Your task to perform on an android device: change alarm snooze length Image 0: 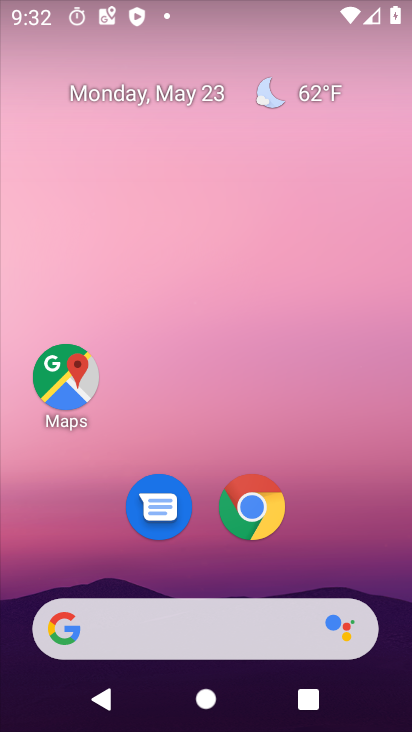
Step 0: drag from (330, 538) to (183, 183)
Your task to perform on an android device: change alarm snooze length Image 1: 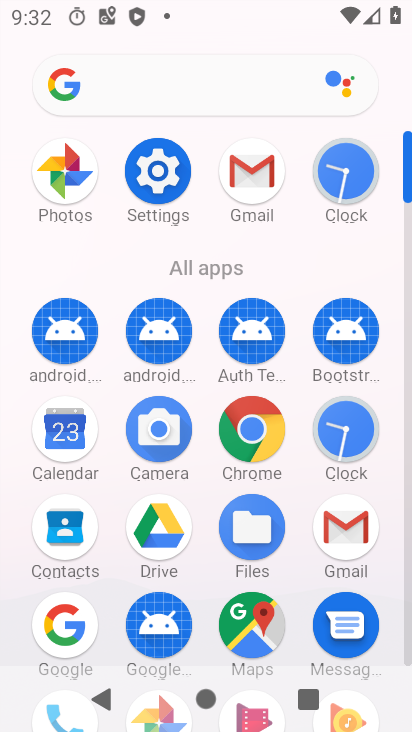
Step 1: click (345, 171)
Your task to perform on an android device: change alarm snooze length Image 2: 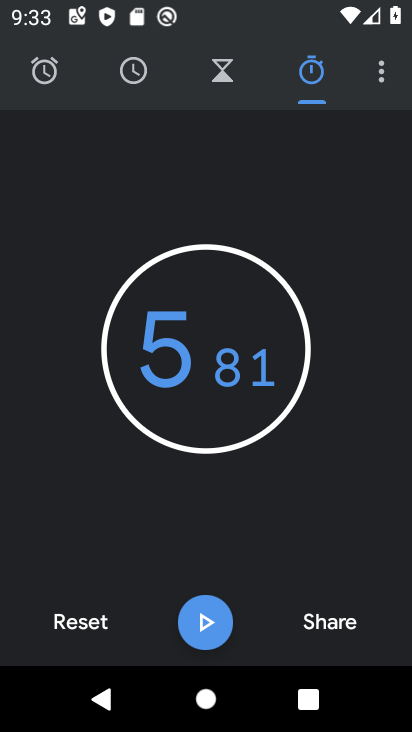
Step 2: click (382, 71)
Your task to perform on an android device: change alarm snooze length Image 3: 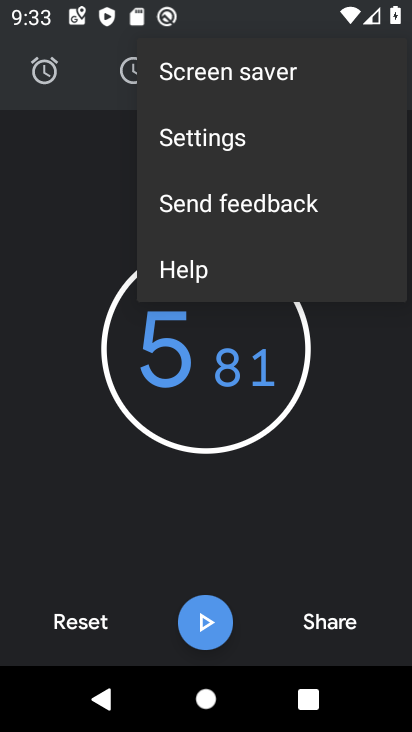
Step 3: click (222, 134)
Your task to perform on an android device: change alarm snooze length Image 4: 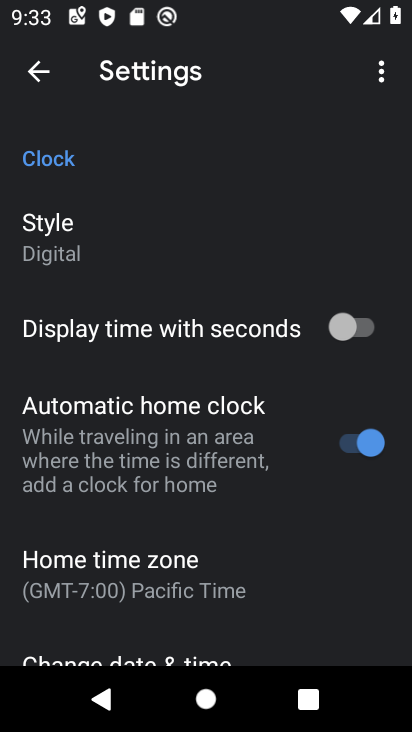
Step 4: drag from (130, 516) to (222, 408)
Your task to perform on an android device: change alarm snooze length Image 5: 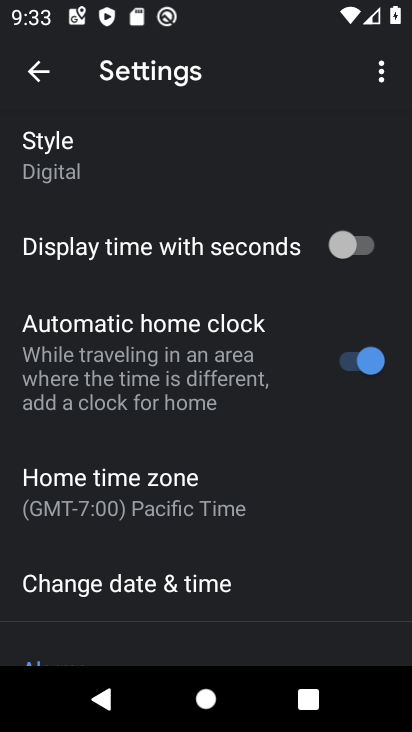
Step 5: drag from (138, 542) to (241, 430)
Your task to perform on an android device: change alarm snooze length Image 6: 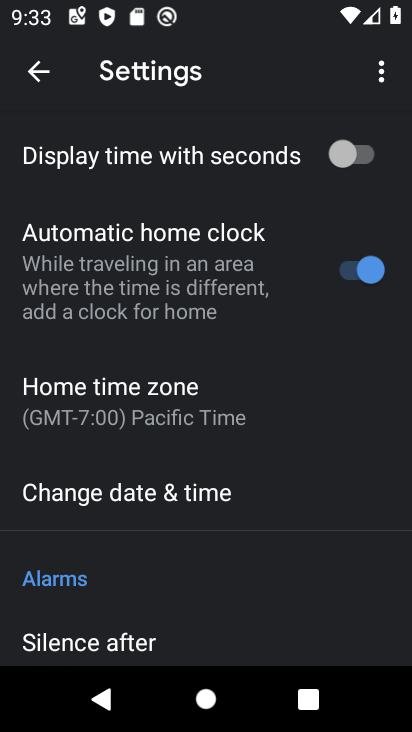
Step 6: drag from (154, 510) to (239, 410)
Your task to perform on an android device: change alarm snooze length Image 7: 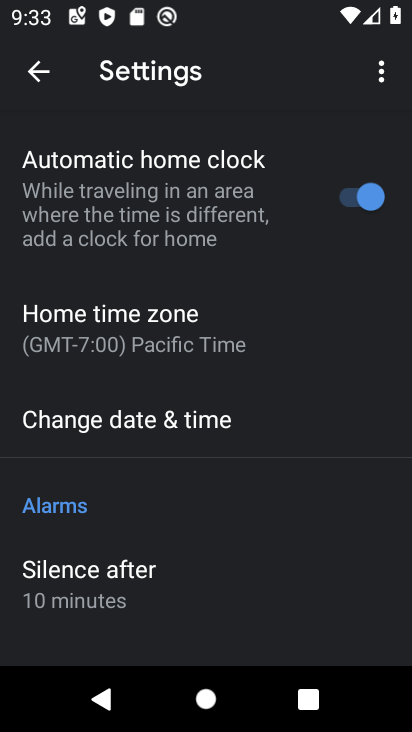
Step 7: drag from (204, 560) to (292, 450)
Your task to perform on an android device: change alarm snooze length Image 8: 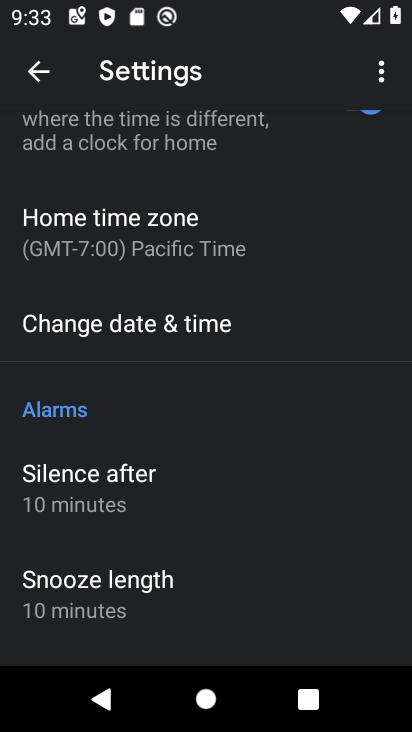
Step 8: click (149, 587)
Your task to perform on an android device: change alarm snooze length Image 9: 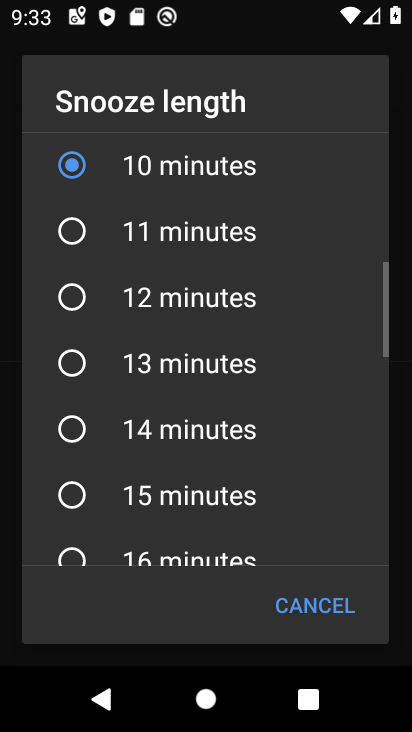
Step 9: drag from (146, 487) to (207, 392)
Your task to perform on an android device: change alarm snooze length Image 10: 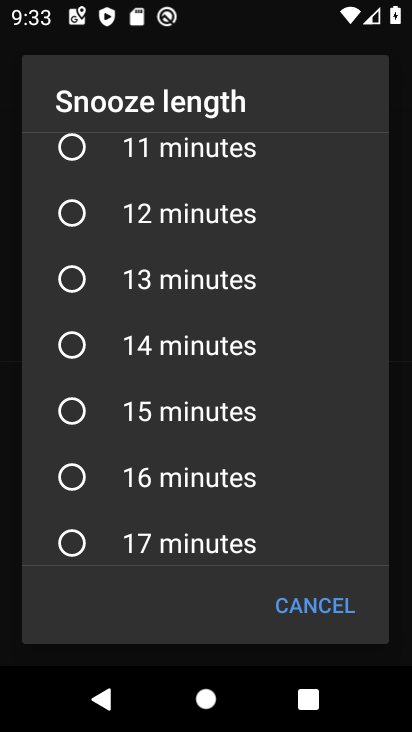
Step 10: drag from (112, 511) to (202, 398)
Your task to perform on an android device: change alarm snooze length Image 11: 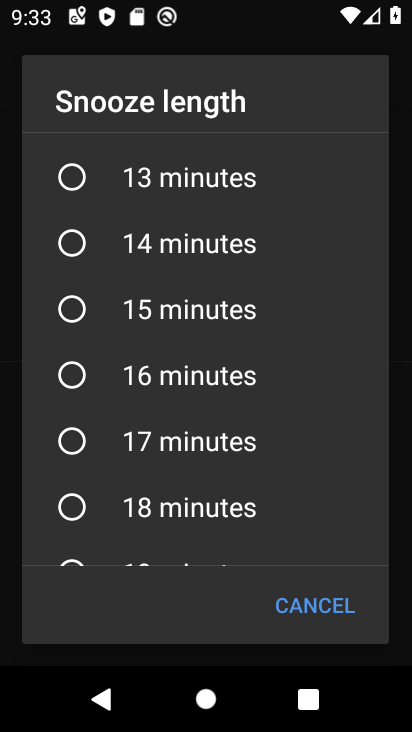
Step 11: click (74, 506)
Your task to perform on an android device: change alarm snooze length Image 12: 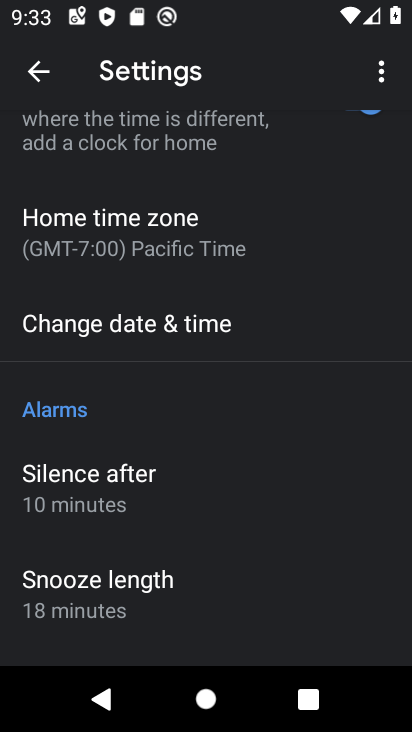
Step 12: task complete